Your task to perform on an android device: turn off airplane mode Image 0: 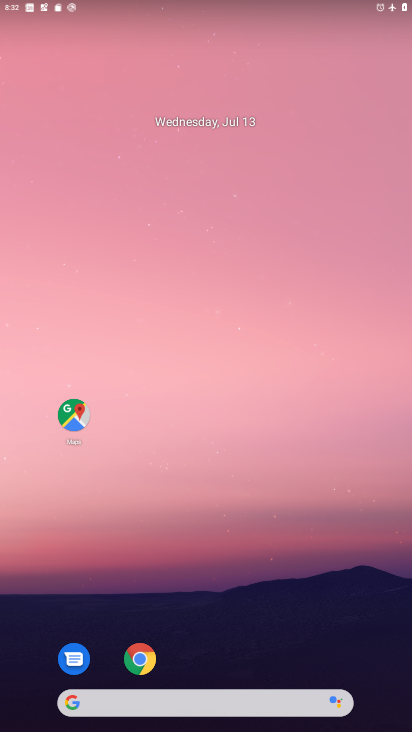
Step 0: drag from (220, 567) to (180, 148)
Your task to perform on an android device: turn off airplane mode Image 1: 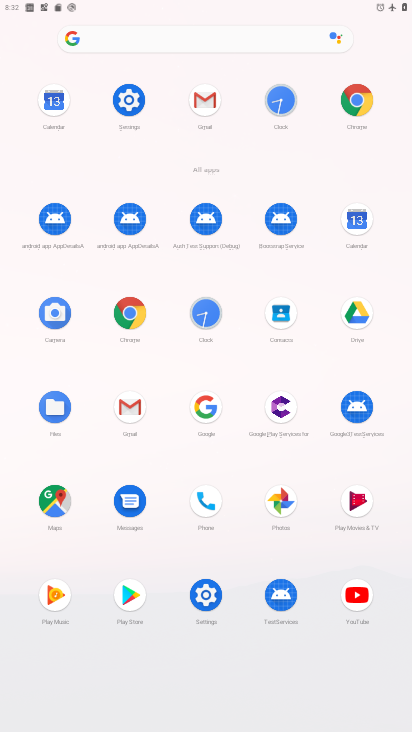
Step 1: click (130, 94)
Your task to perform on an android device: turn off airplane mode Image 2: 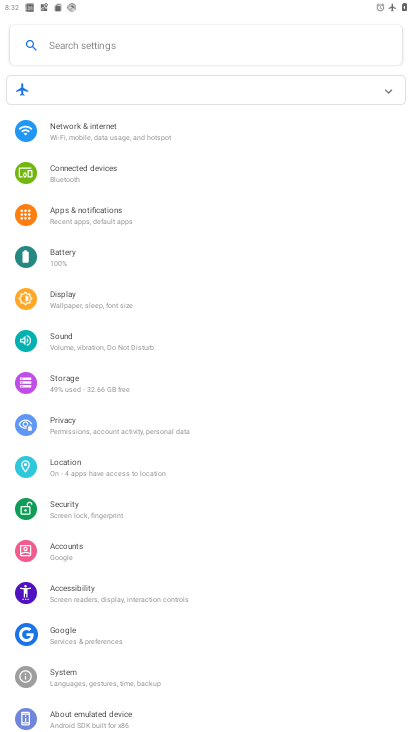
Step 2: click (99, 128)
Your task to perform on an android device: turn off airplane mode Image 3: 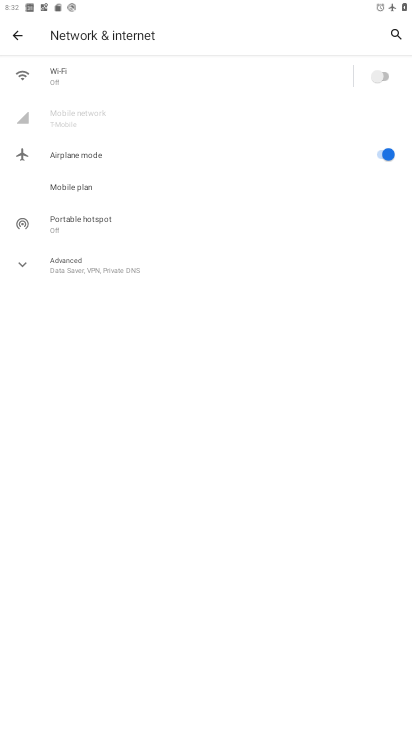
Step 3: click (389, 156)
Your task to perform on an android device: turn off airplane mode Image 4: 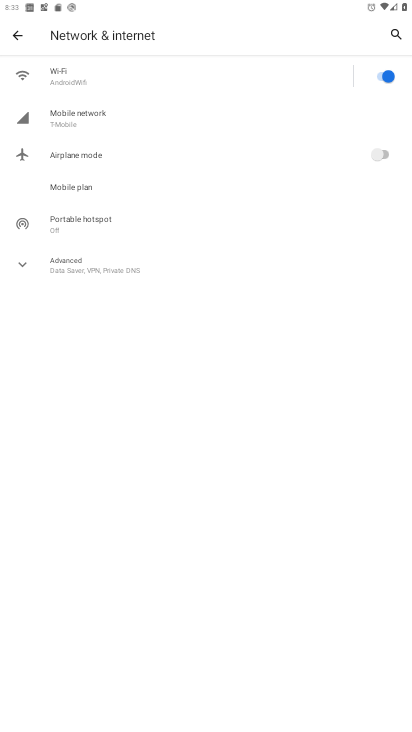
Step 4: task complete